Your task to perform on an android device: turn off airplane mode Image 0: 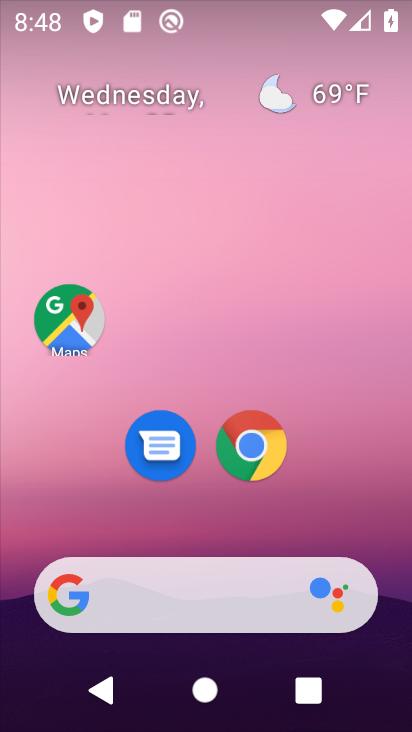
Step 0: drag from (277, 6) to (252, 366)
Your task to perform on an android device: turn off airplane mode Image 1: 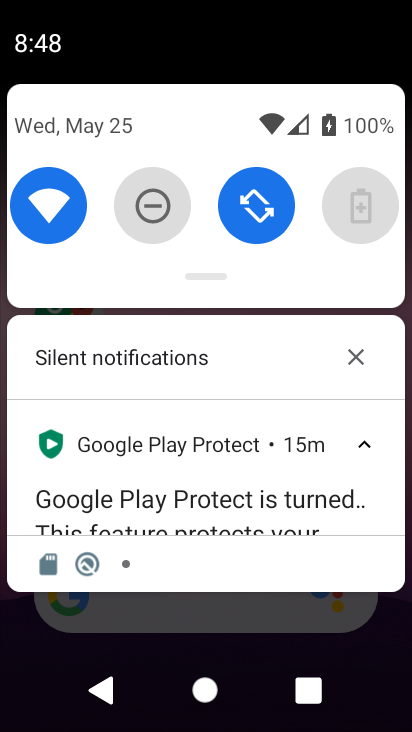
Step 1: task complete